Your task to perform on an android device: empty trash in google photos Image 0: 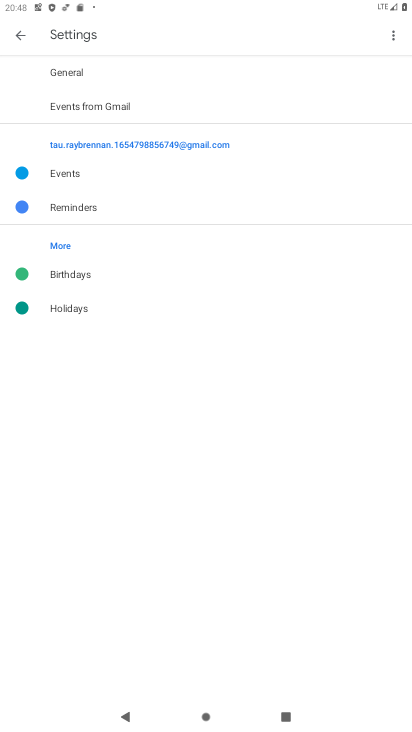
Step 0: drag from (234, 673) to (328, 3)
Your task to perform on an android device: empty trash in google photos Image 1: 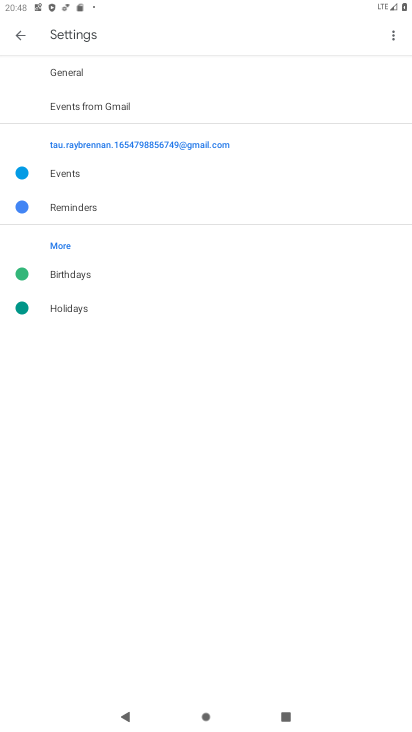
Step 1: press home button
Your task to perform on an android device: empty trash in google photos Image 2: 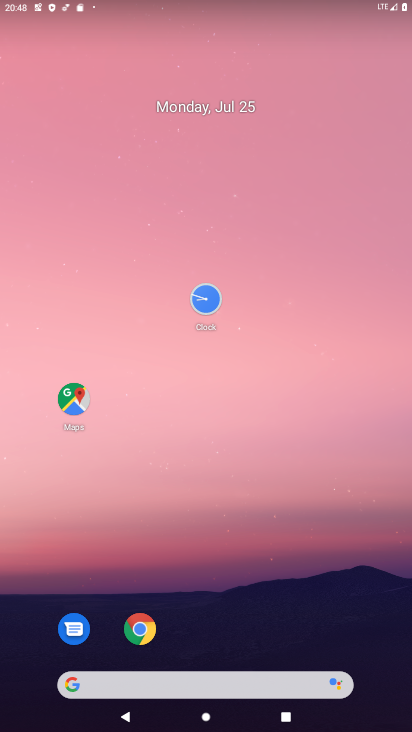
Step 2: drag from (258, 627) to (327, 4)
Your task to perform on an android device: empty trash in google photos Image 3: 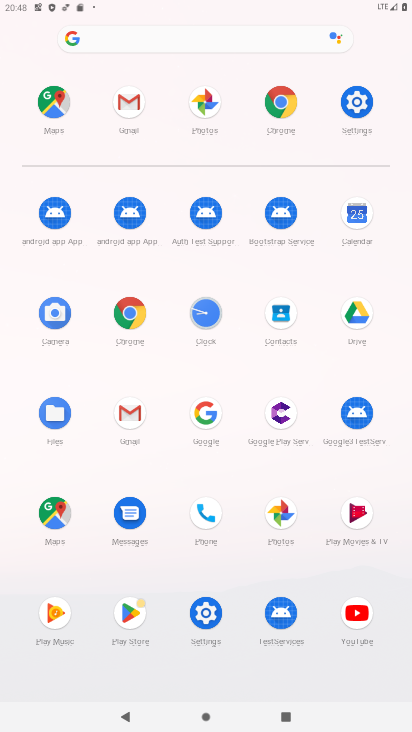
Step 3: click (289, 529)
Your task to perform on an android device: empty trash in google photos Image 4: 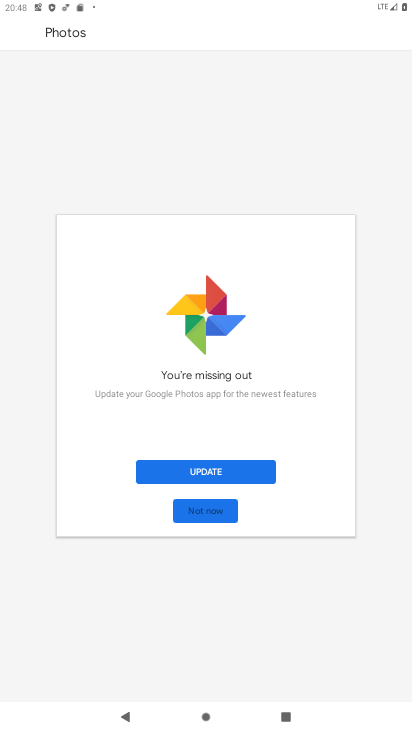
Step 4: click (219, 515)
Your task to perform on an android device: empty trash in google photos Image 5: 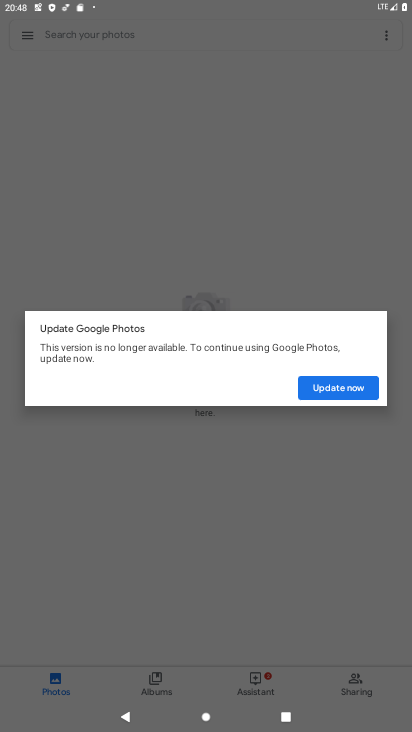
Step 5: click (357, 385)
Your task to perform on an android device: empty trash in google photos Image 6: 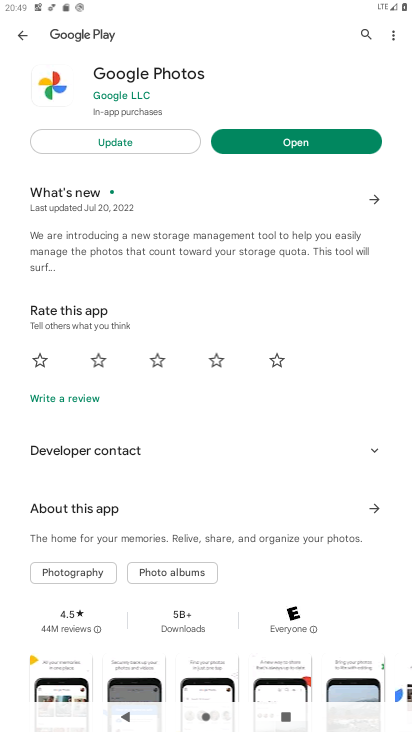
Step 6: press back button
Your task to perform on an android device: empty trash in google photos Image 7: 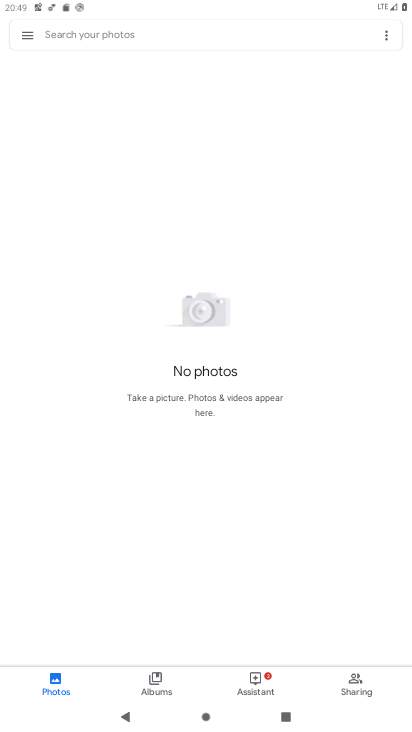
Step 7: click (25, 35)
Your task to perform on an android device: empty trash in google photos Image 8: 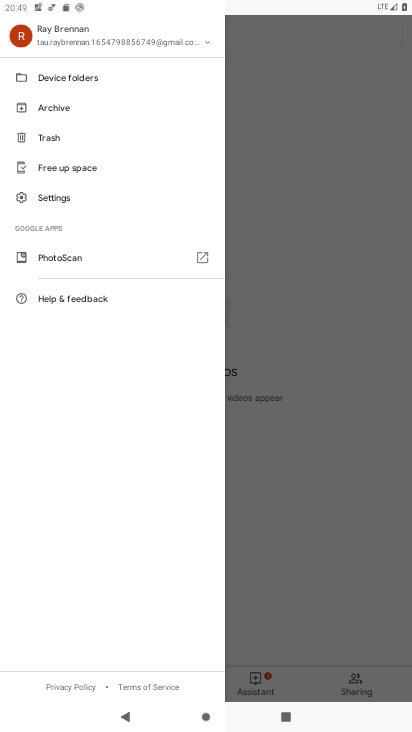
Step 8: click (39, 144)
Your task to perform on an android device: empty trash in google photos Image 9: 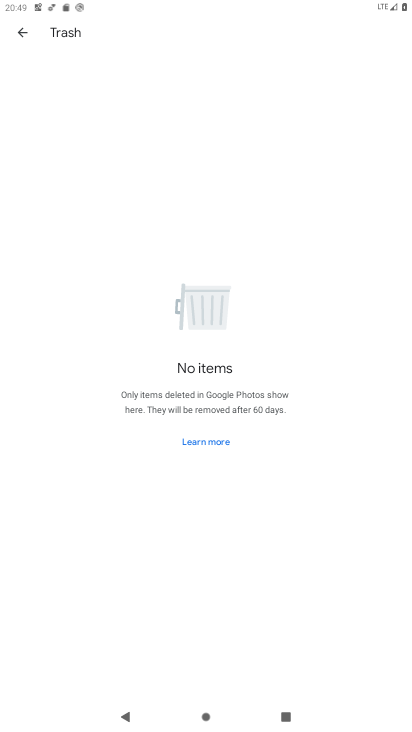
Step 9: task complete